Your task to perform on an android device: Open Google Image 0: 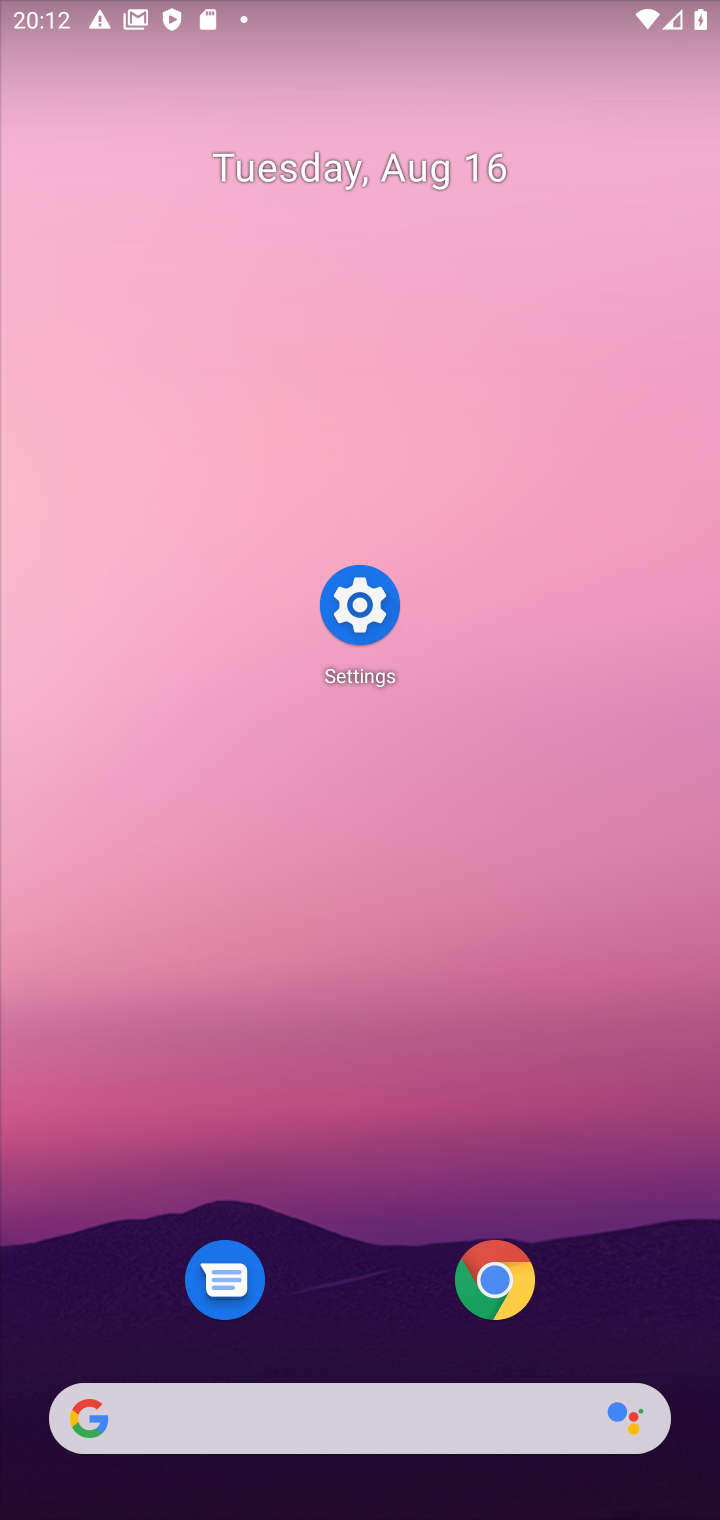
Step 0: click (83, 1422)
Your task to perform on an android device: Open Google Image 1: 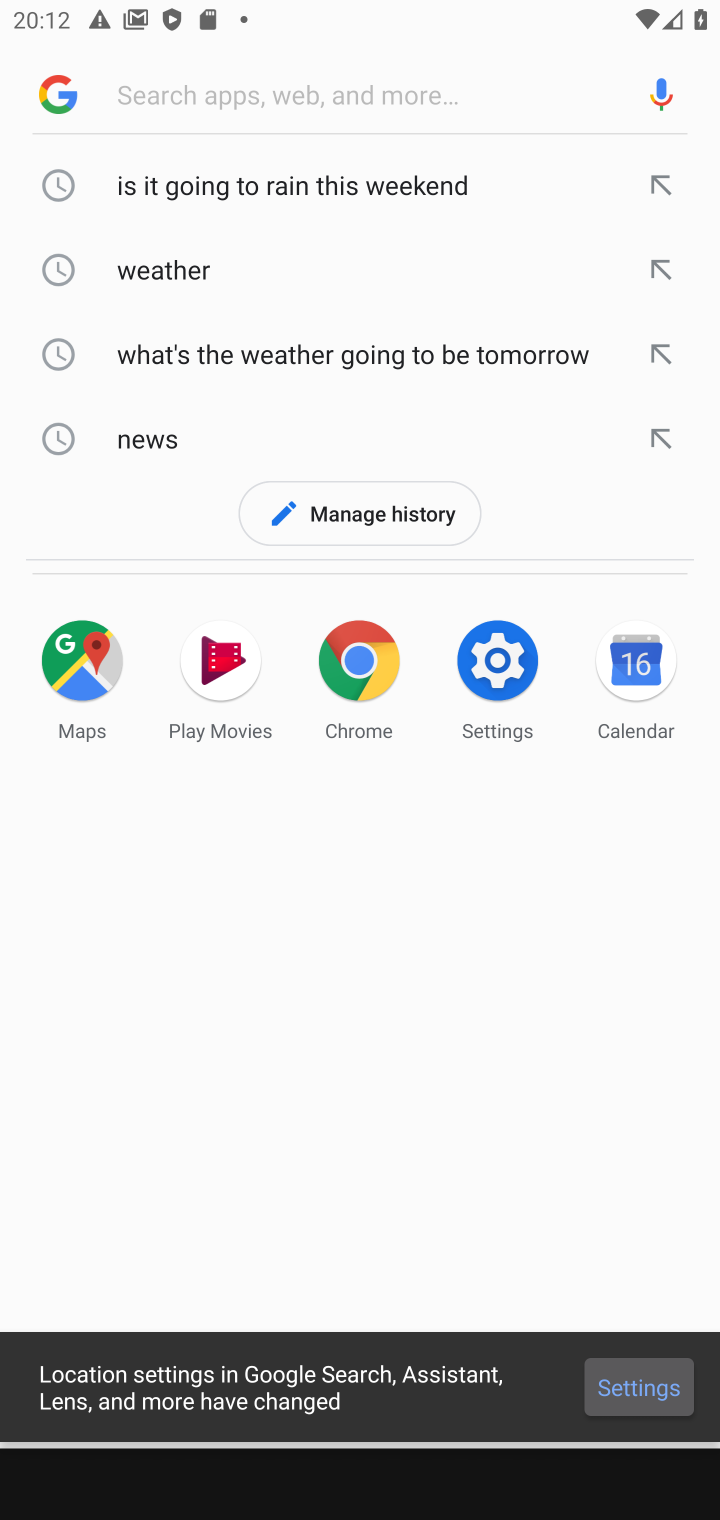
Step 1: click (56, 90)
Your task to perform on an android device: Open Google Image 2: 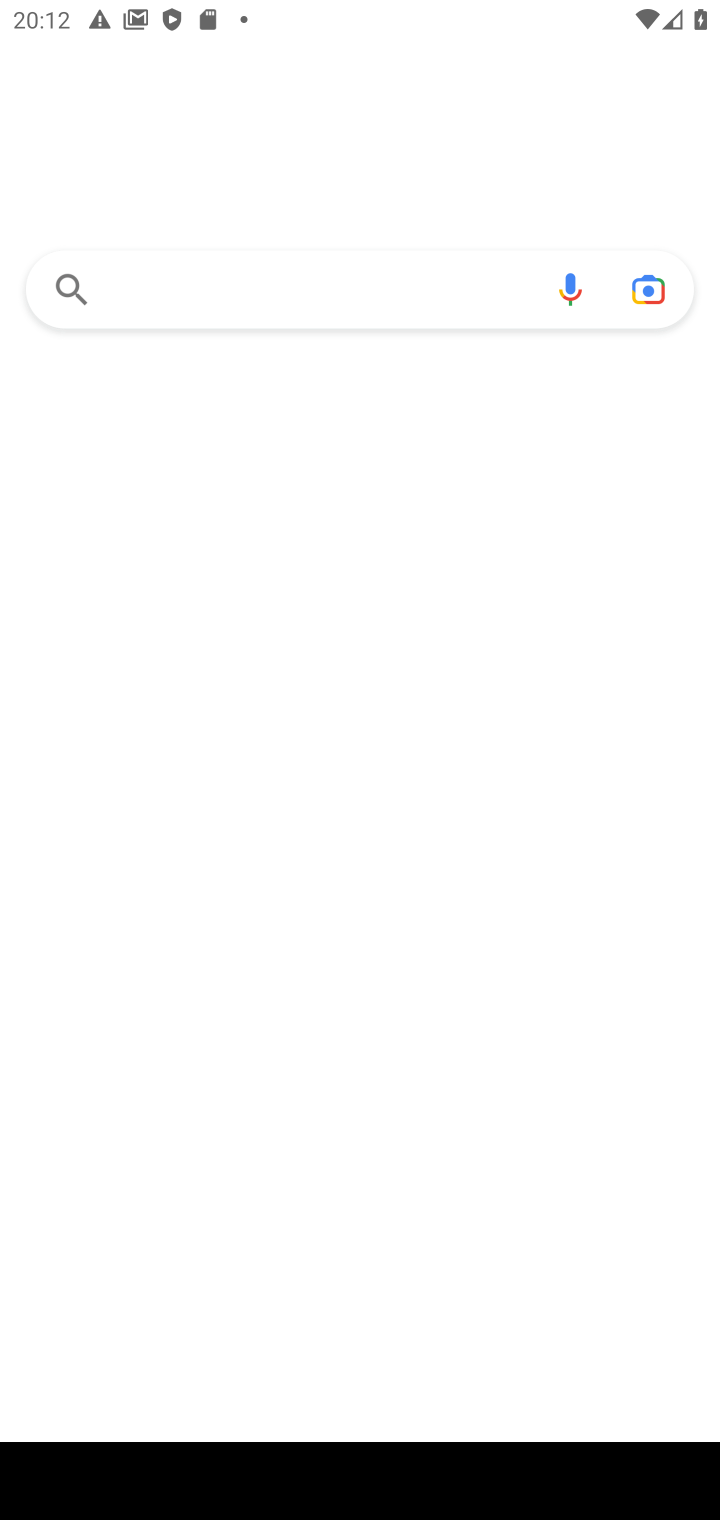
Step 2: click (56, 90)
Your task to perform on an android device: Open Google Image 3: 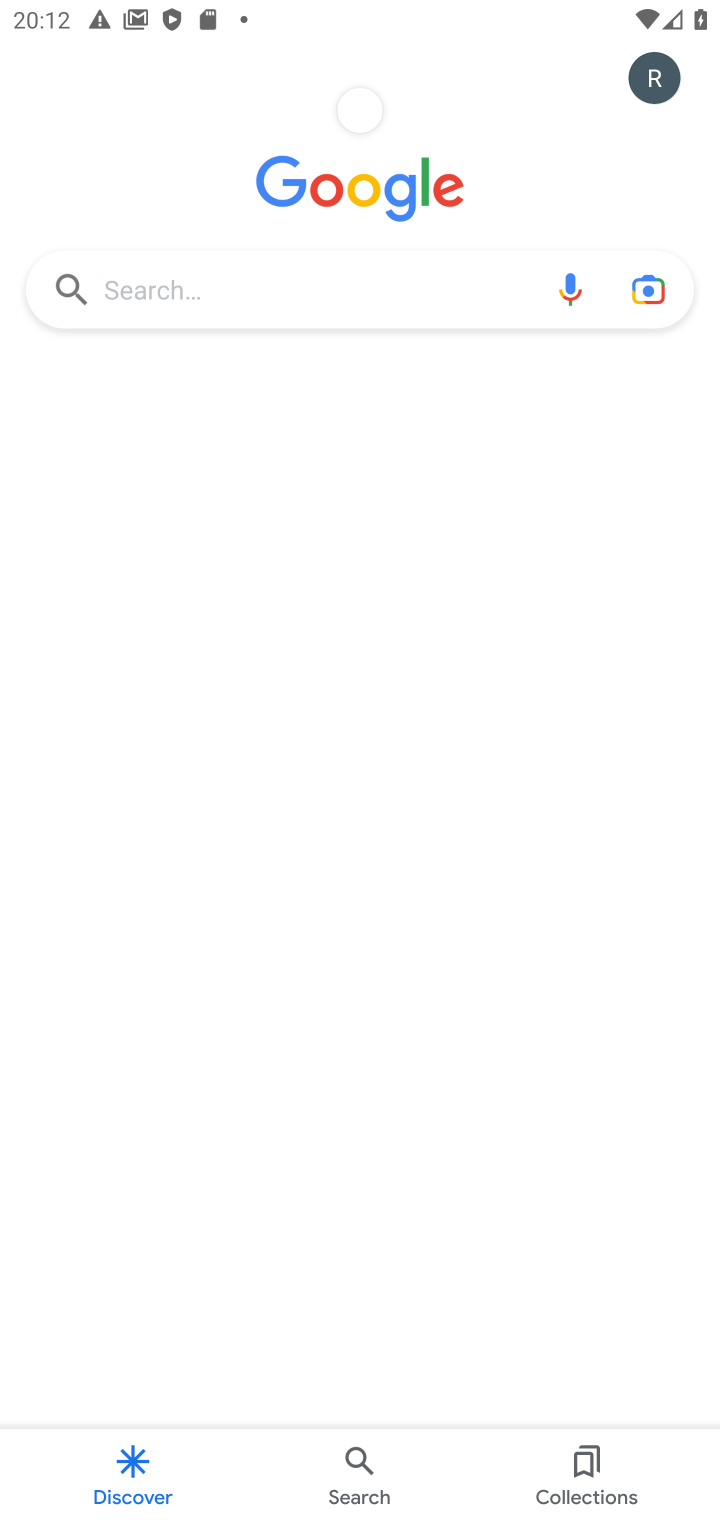
Step 3: task complete